Your task to perform on an android device: Search for sushi restaurants on Maps Image 0: 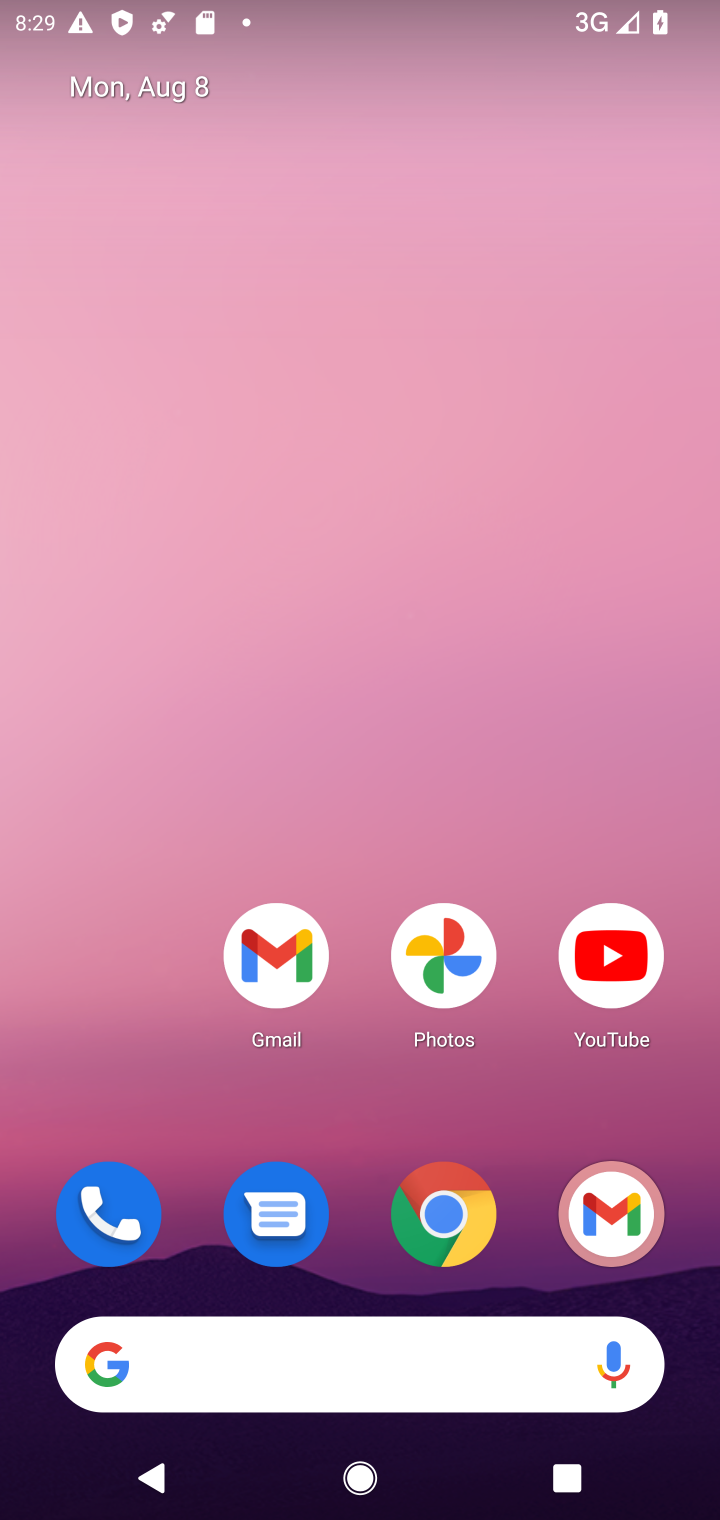
Step 0: drag from (229, 1105) to (74, 150)
Your task to perform on an android device: Search for sushi restaurants on Maps Image 1: 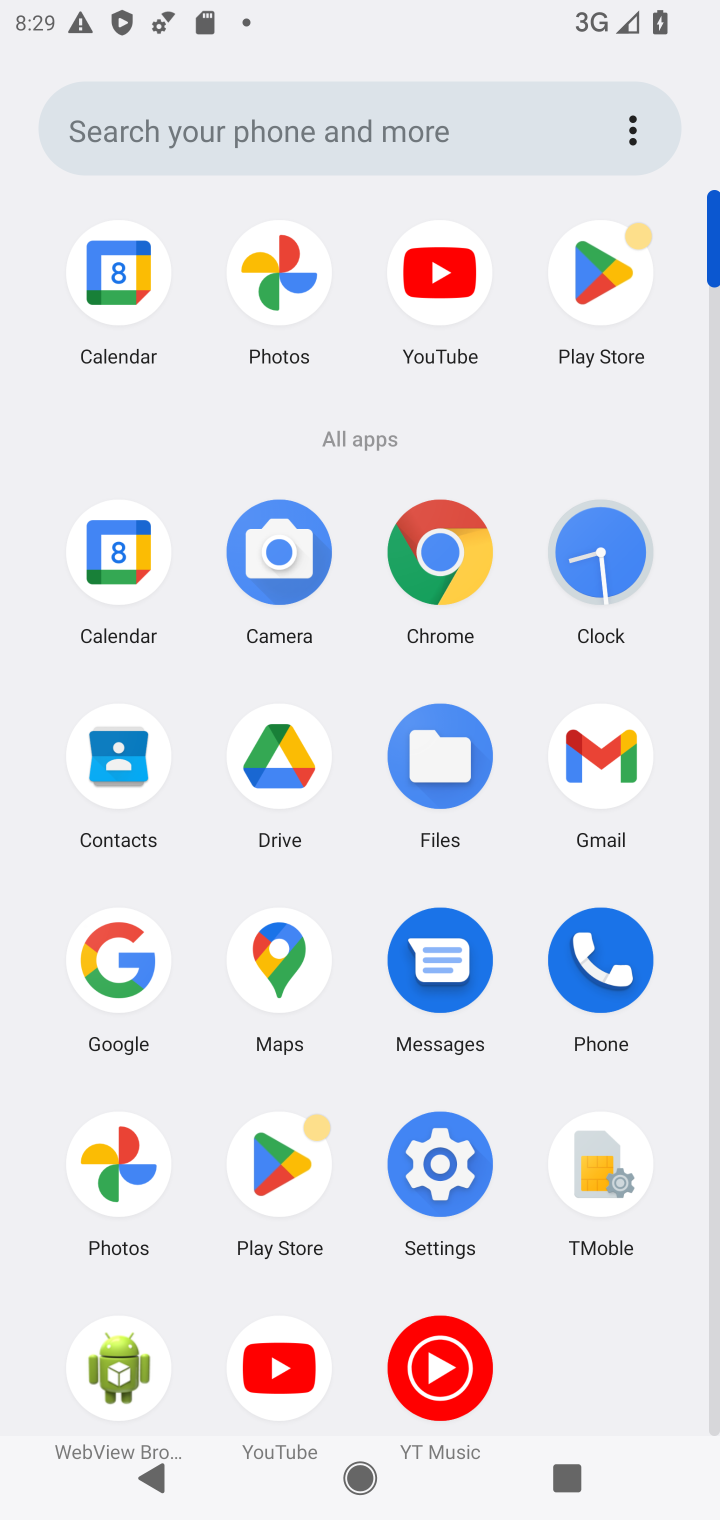
Step 1: click (302, 944)
Your task to perform on an android device: Search for sushi restaurants on Maps Image 2: 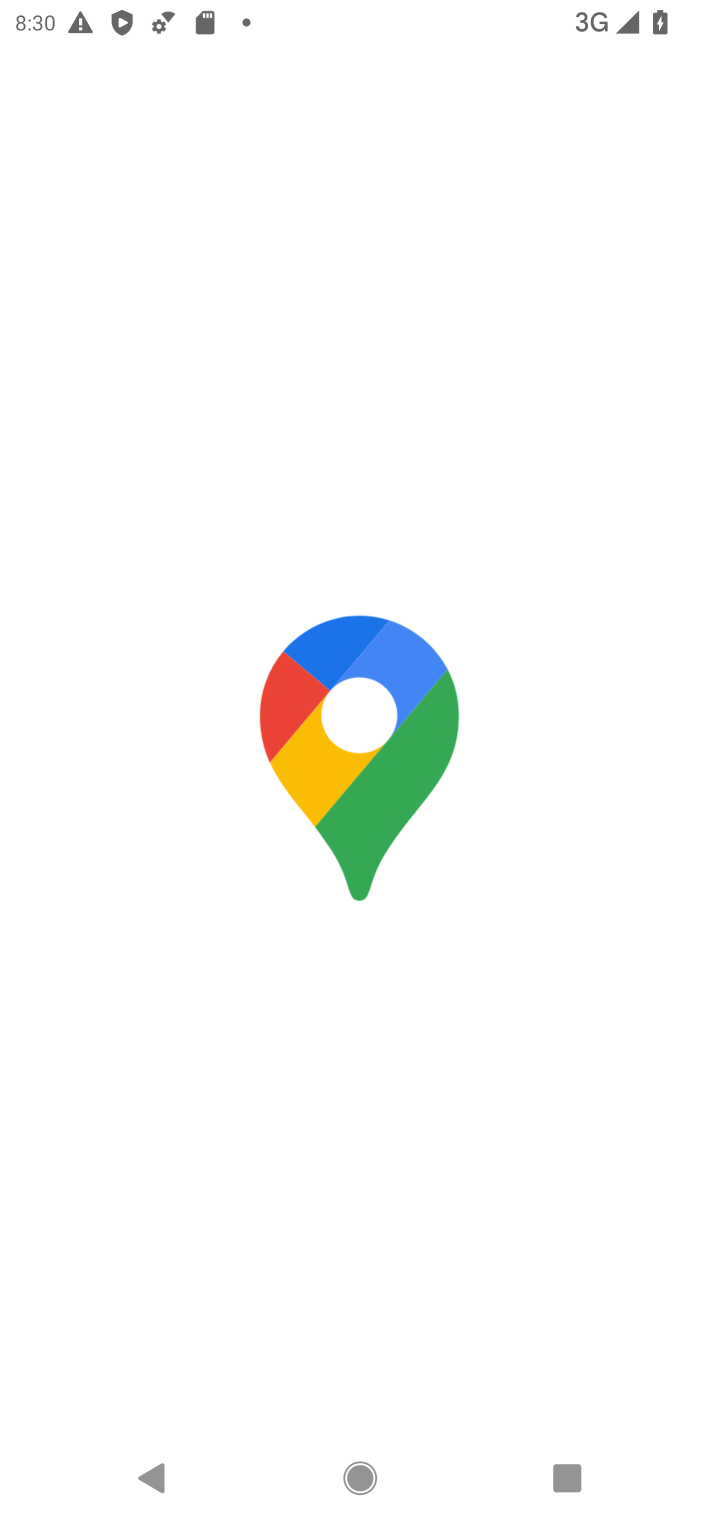
Step 2: press home button
Your task to perform on an android device: Search for sushi restaurants on Maps Image 3: 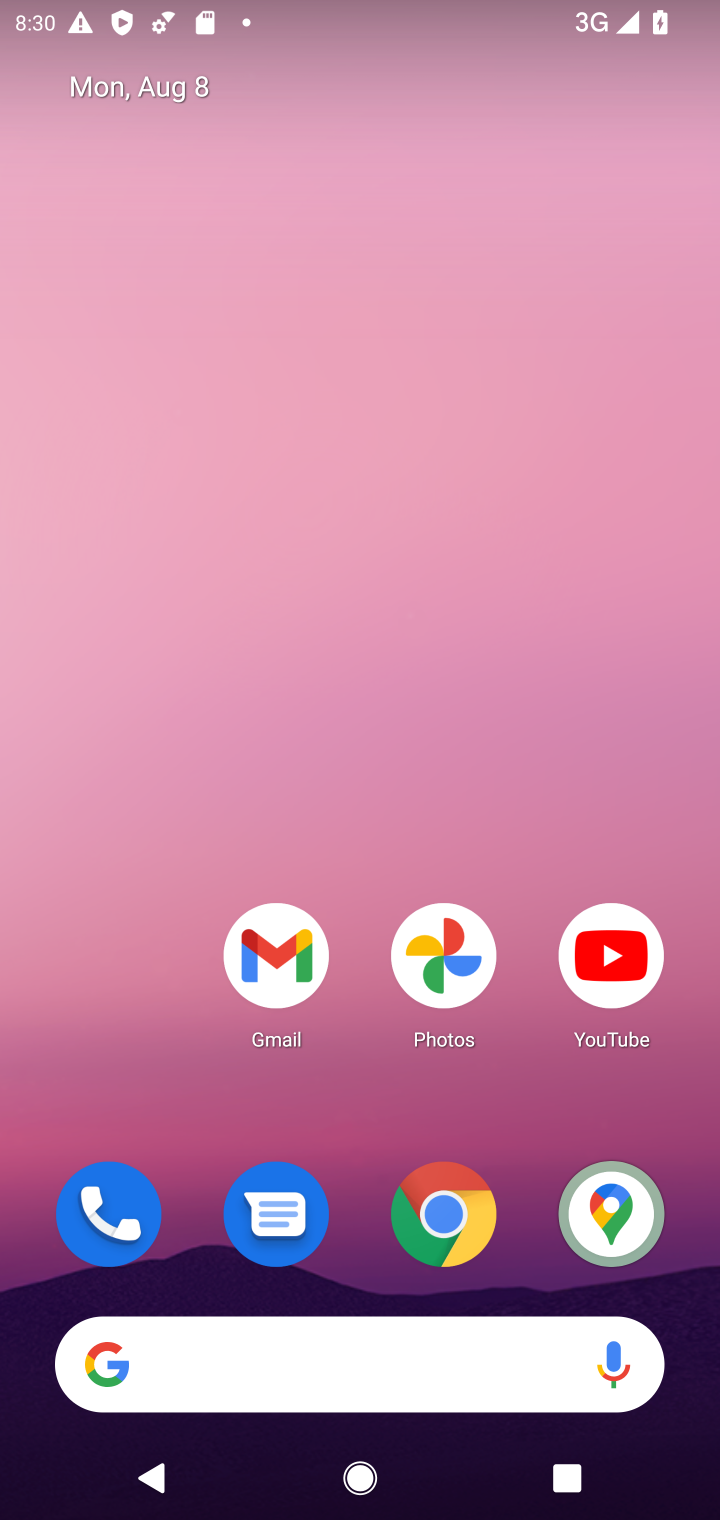
Step 3: drag from (200, 1116) to (507, 145)
Your task to perform on an android device: Search for sushi restaurants on Maps Image 4: 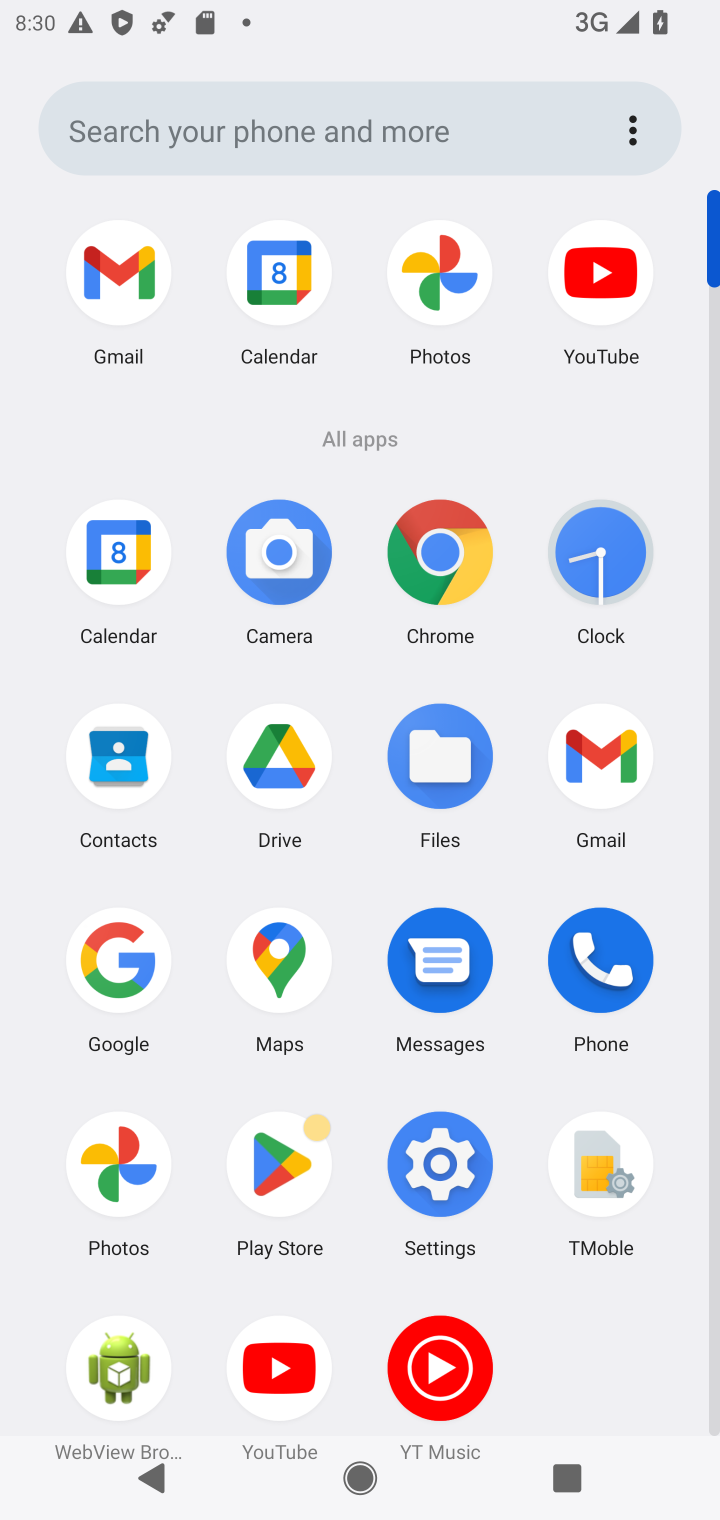
Step 4: click (272, 990)
Your task to perform on an android device: Search for sushi restaurants on Maps Image 5: 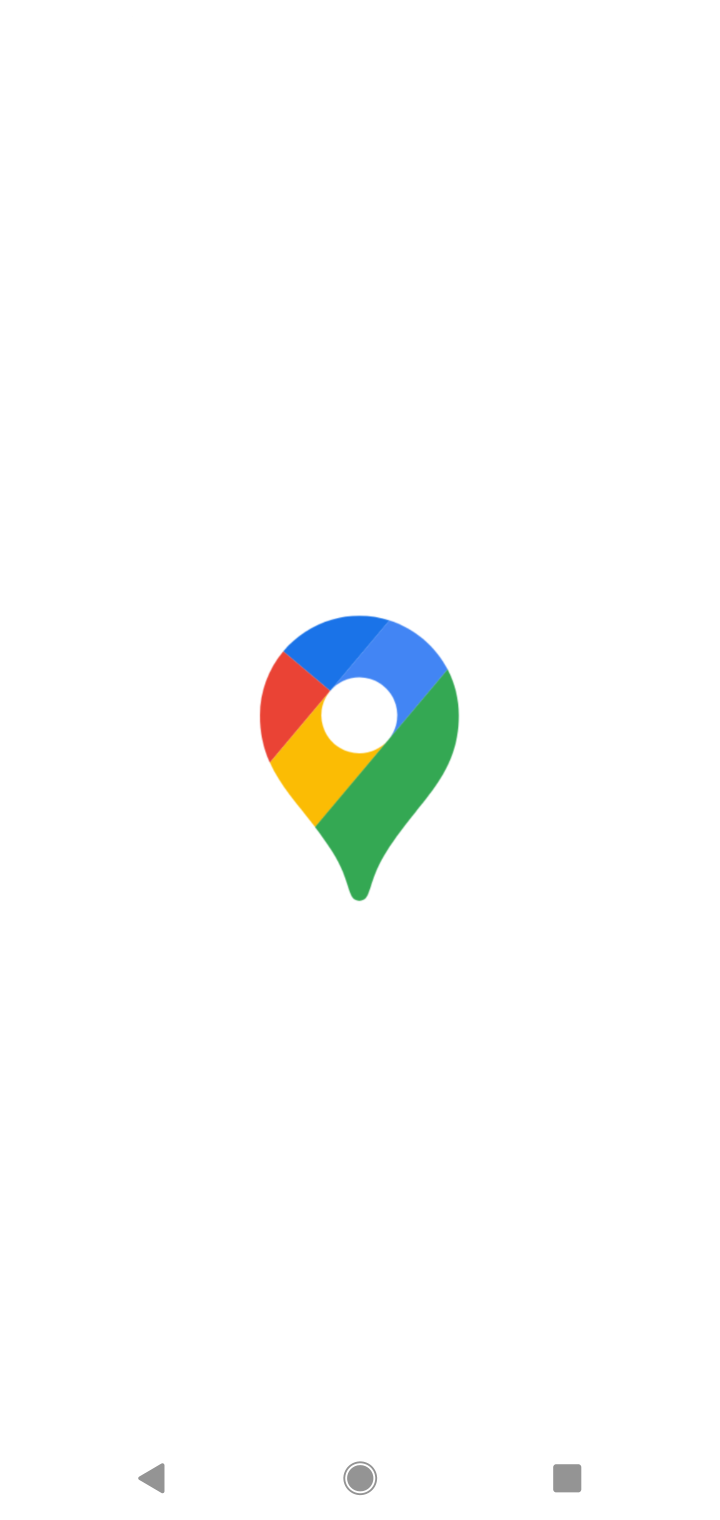
Step 5: task complete